Your task to perform on an android device: turn on location history Image 0: 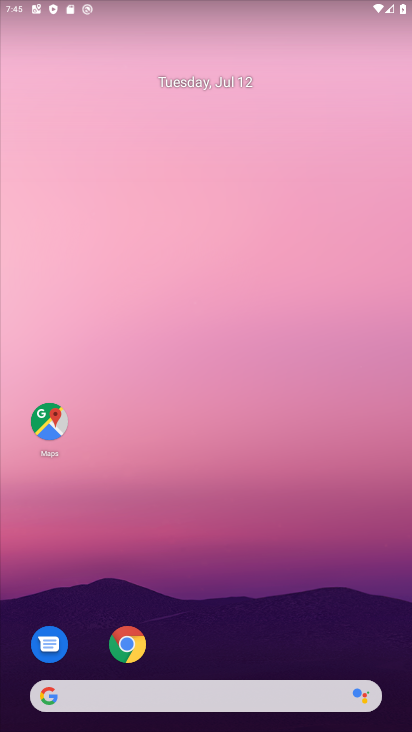
Step 0: drag from (187, 624) to (216, 251)
Your task to perform on an android device: turn on location history Image 1: 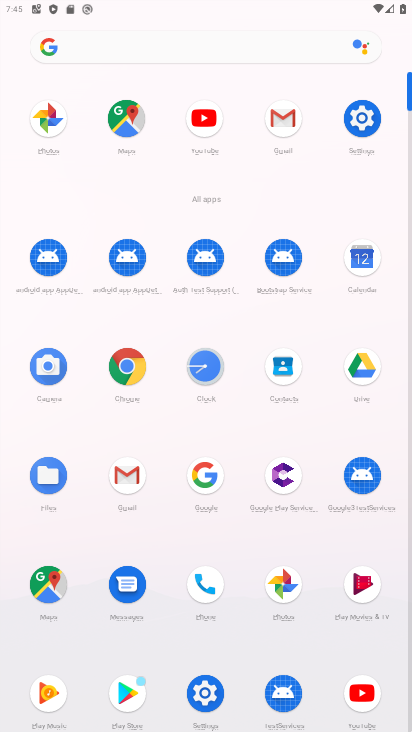
Step 1: click (355, 118)
Your task to perform on an android device: turn on location history Image 2: 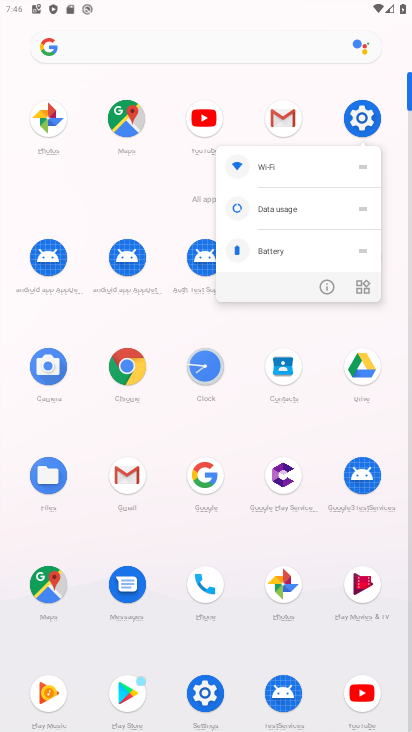
Step 2: click (331, 288)
Your task to perform on an android device: turn on location history Image 3: 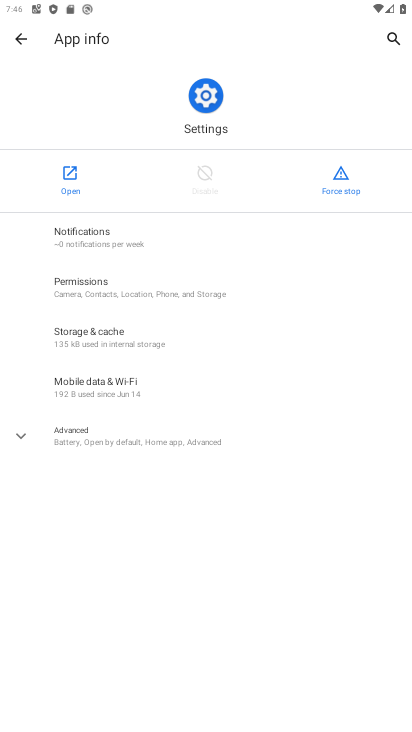
Step 3: click (76, 179)
Your task to perform on an android device: turn on location history Image 4: 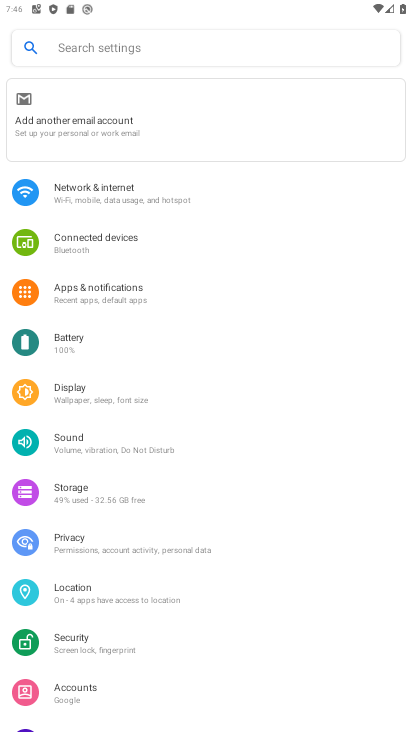
Step 4: click (99, 590)
Your task to perform on an android device: turn on location history Image 5: 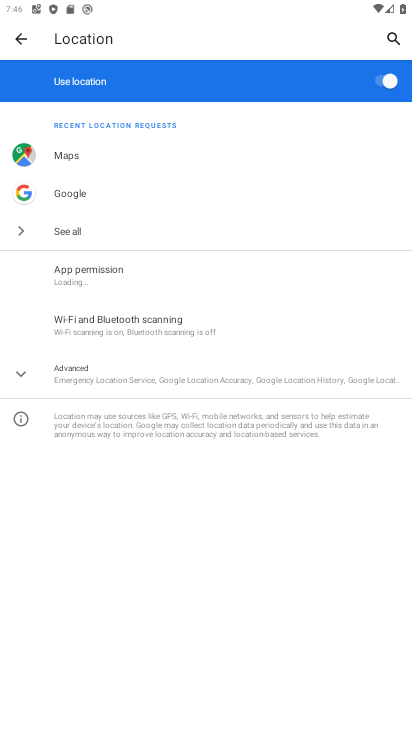
Step 5: click (84, 378)
Your task to perform on an android device: turn on location history Image 6: 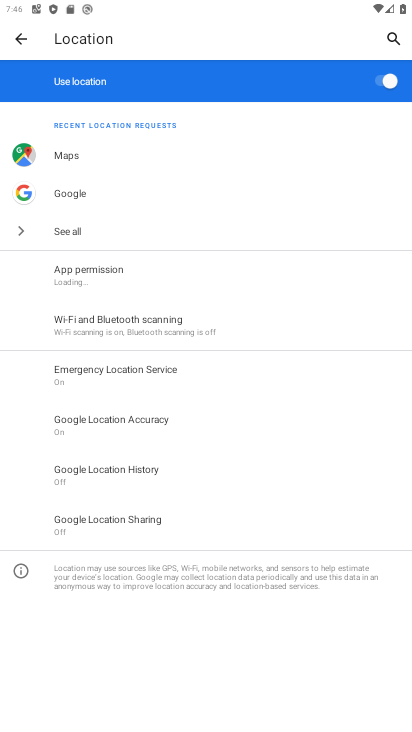
Step 6: click (145, 477)
Your task to perform on an android device: turn on location history Image 7: 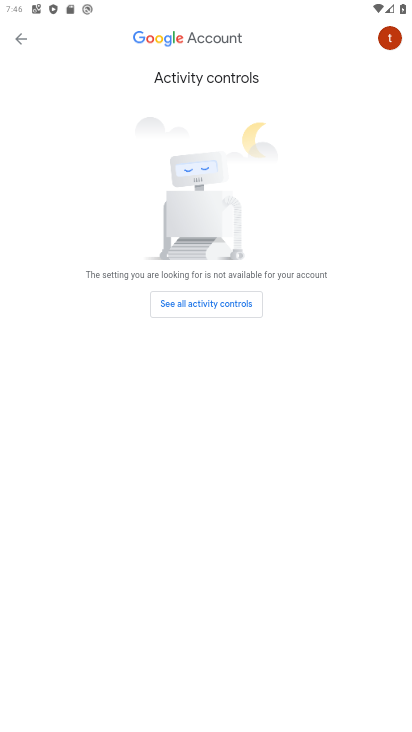
Step 7: click (202, 305)
Your task to perform on an android device: turn on location history Image 8: 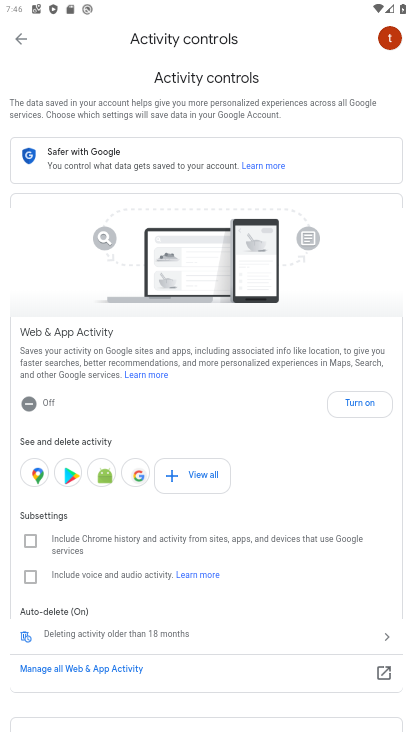
Step 8: drag from (195, 551) to (302, 196)
Your task to perform on an android device: turn on location history Image 9: 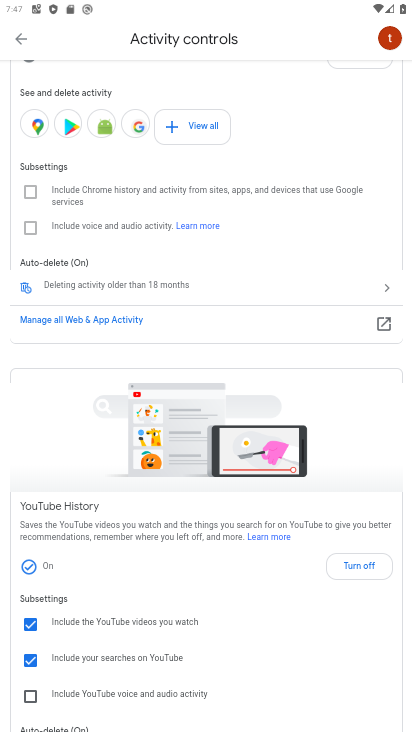
Step 9: drag from (247, 444) to (288, 200)
Your task to perform on an android device: turn on location history Image 10: 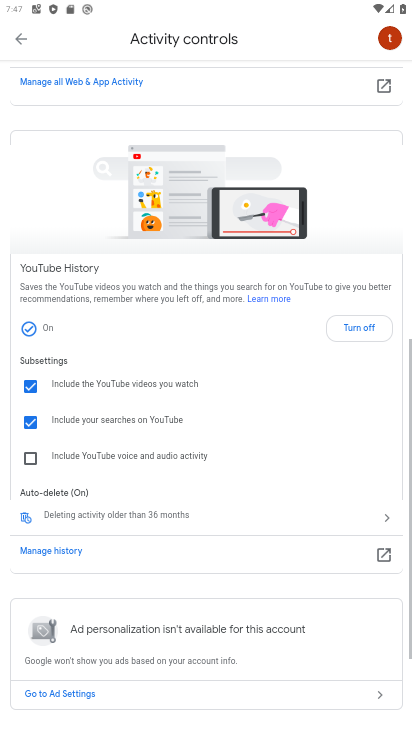
Step 10: drag from (275, 179) to (248, 668)
Your task to perform on an android device: turn on location history Image 11: 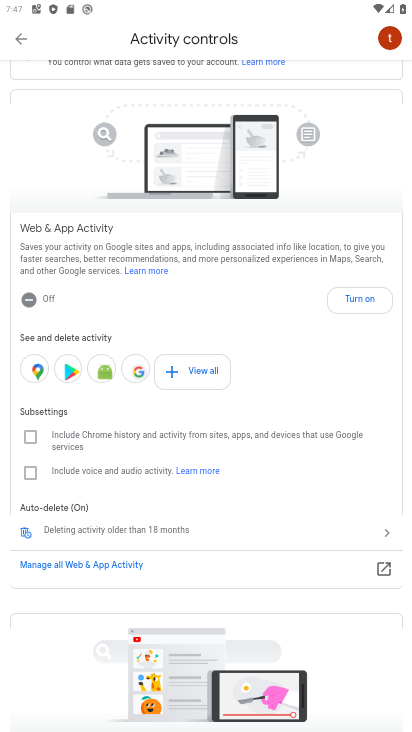
Step 11: click (355, 298)
Your task to perform on an android device: turn on location history Image 12: 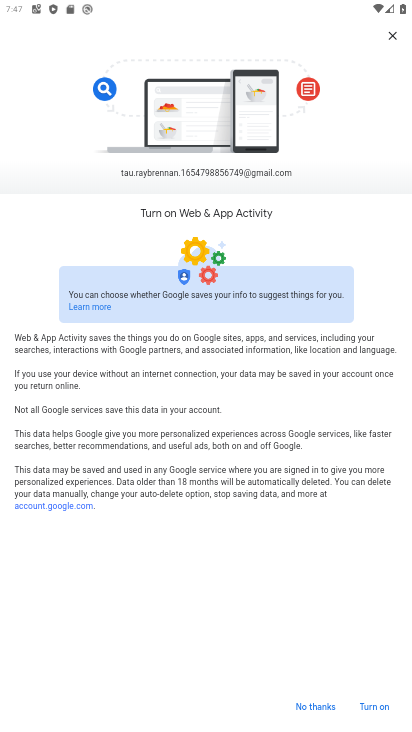
Step 12: click (369, 707)
Your task to perform on an android device: turn on location history Image 13: 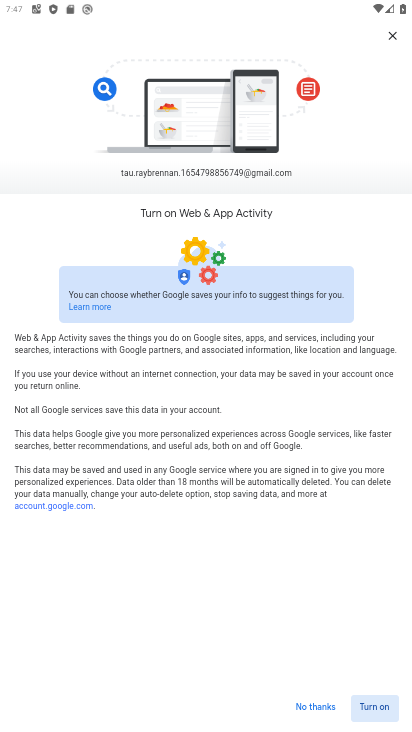
Step 13: drag from (127, 606) to (370, 9)
Your task to perform on an android device: turn on location history Image 14: 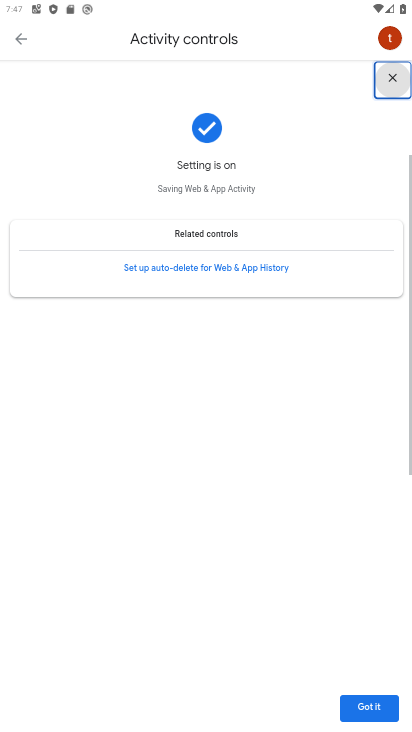
Step 14: drag from (173, 638) to (233, 298)
Your task to perform on an android device: turn on location history Image 15: 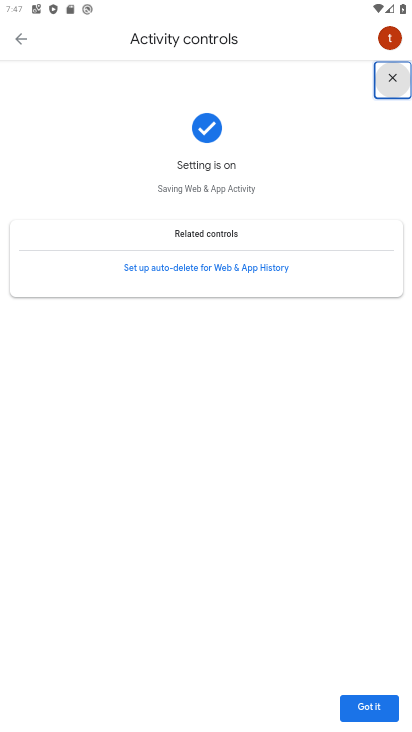
Step 15: click (358, 713)
Your task to perform on an android device: turn on location history Image 16: 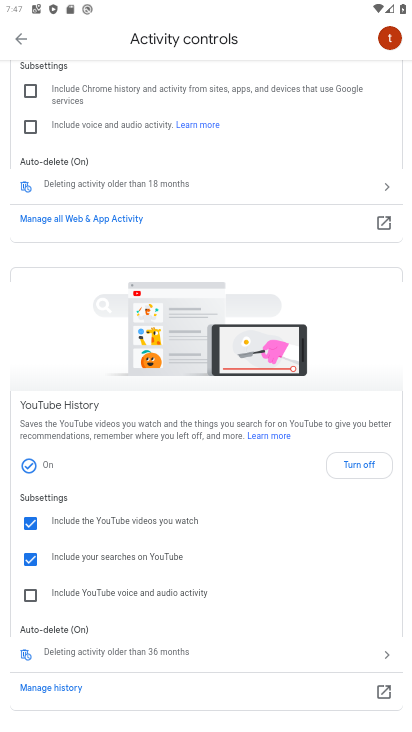
Step 16: task complete